Your task to perform on an android device: toggle notifications settings in the gmail app Image 0: 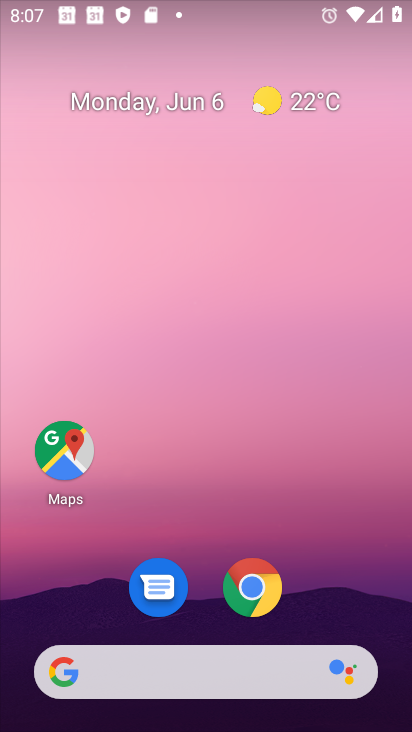
Step 0: drag from (242, 655) to (261, 250)
Your task to perform on an android device: toggle notifications settings in the gmail app Image 1: 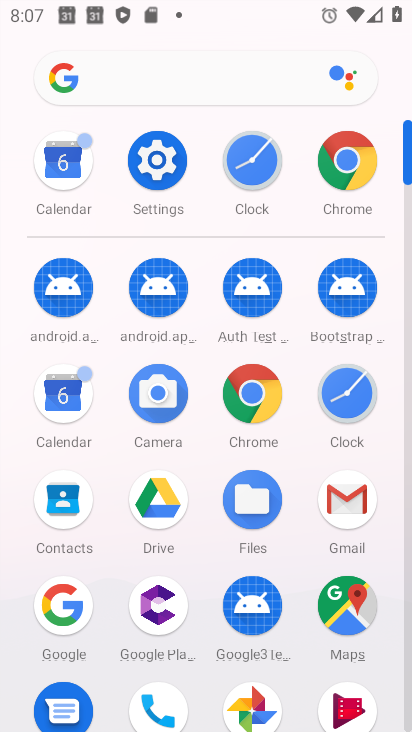
Step 1: click (328, 480)
Your task to perform on an android device: toggle notifications settings in the gmail app Image 2: 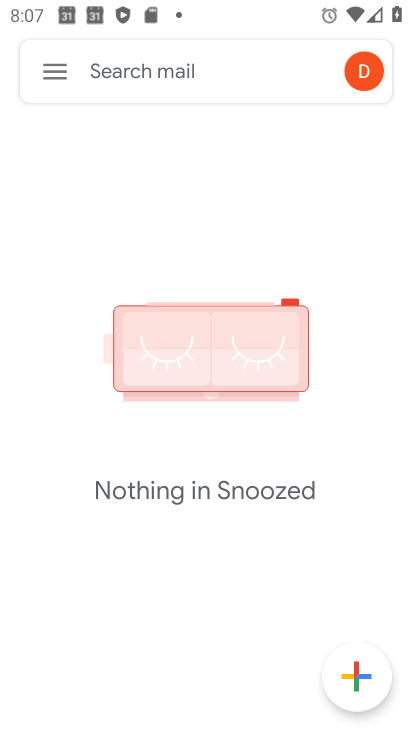
Step 2: click (58, 62)
Your task to perform on an android device: toggle notifications settings in the gmail app Image 3: 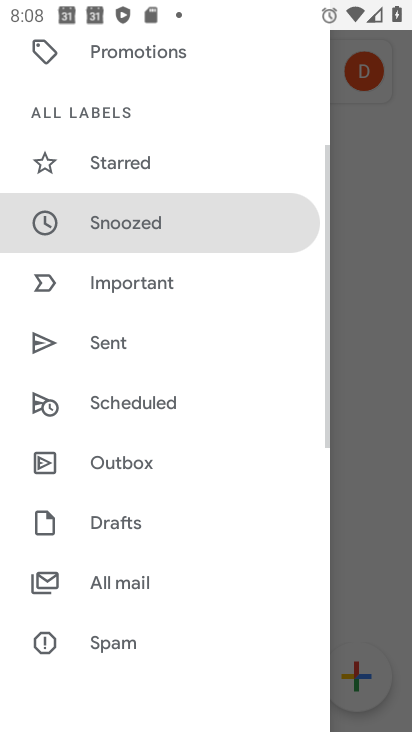
Step 3: drag from (166, 666) to (156, 295)
Your task to perform on an android device: toggle notifications settings in the gmail app Image 4: 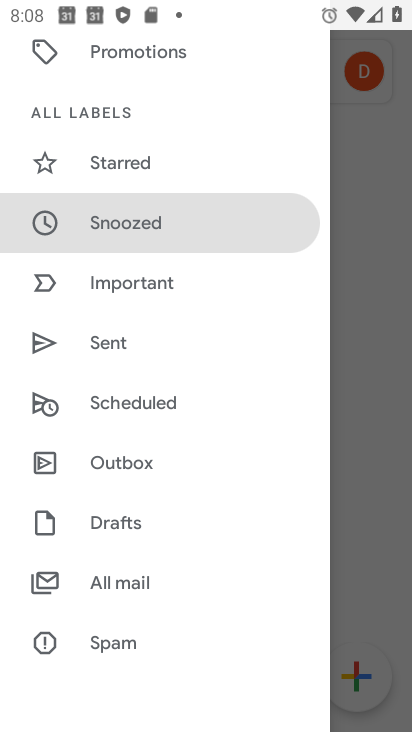
Step 4: drag from (137, 654) to (118, 496)
Your task to perform on an android device: toggle notifications settings in the gmail app Image 5: 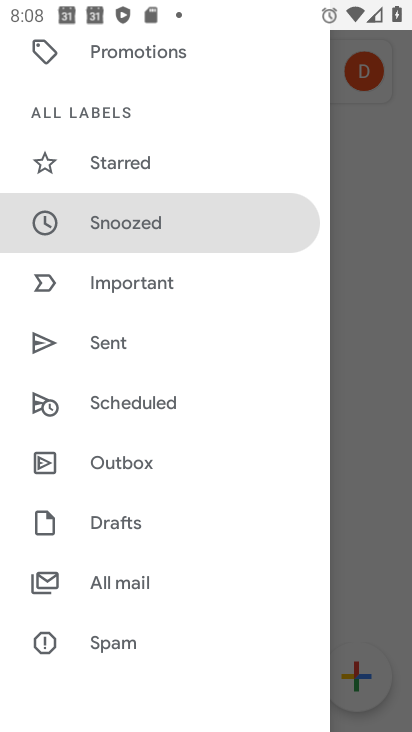
Step 5: drag from (88, 629) to (82, 202)
Your task to perform on an android device: toggle notifications settings in the gmail app Image 6: 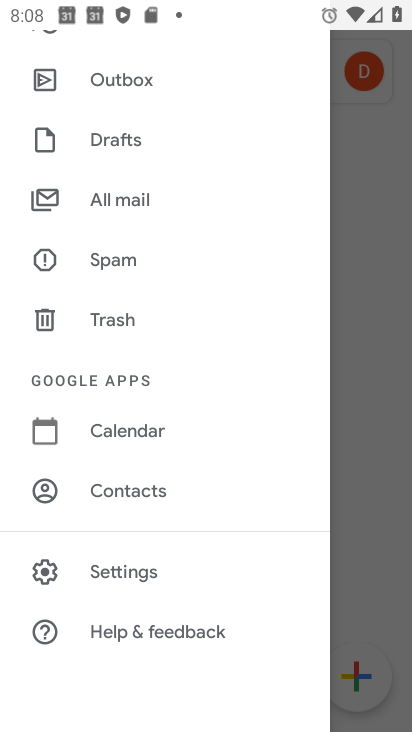
Step 6: click (118, 578)
Your task to perform on an android device: toggle notifications settings in the gmail app Image 7: 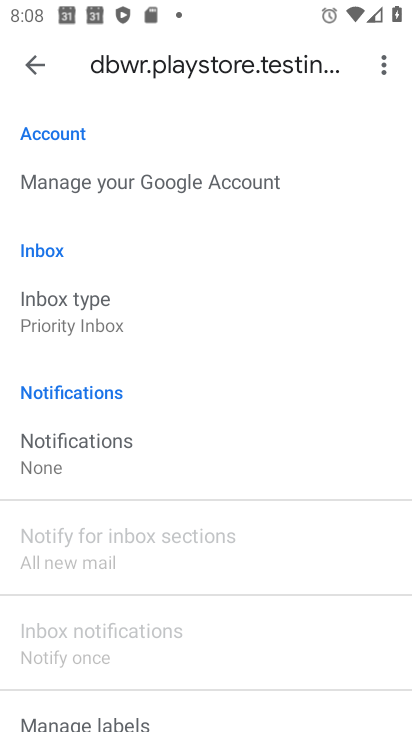
Step 7: click (35, 76)
Your task to perform on an android device: toggle notifications settings in the gmail app Image 8: 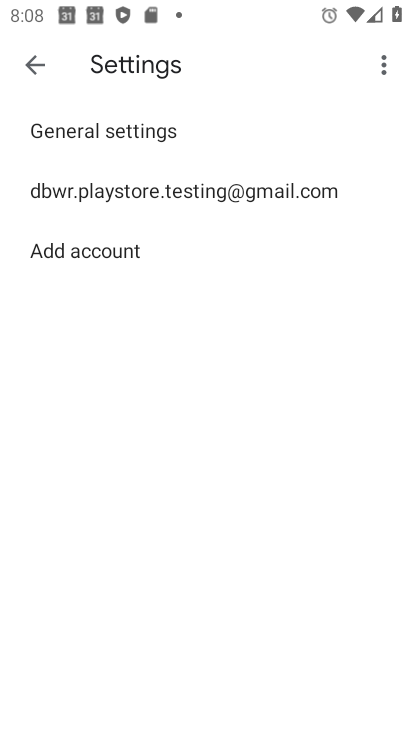
Step 8: click (68, 134)
Your task to perform on an android device: toggle notifications settings in the gmail app Image 9: 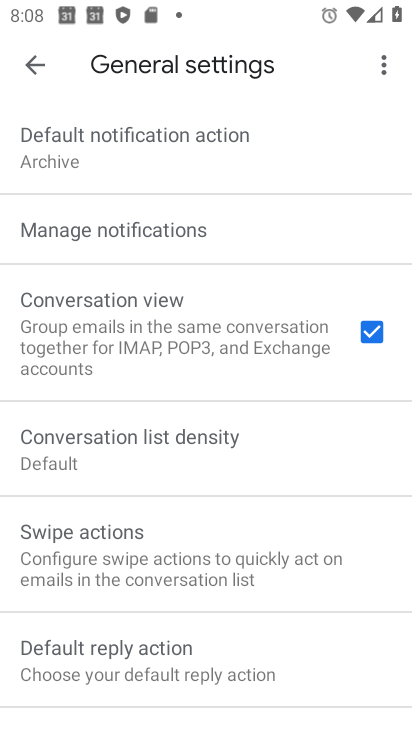
Step 9: click (144, 225)
Your task to perform on an android device: toggle notifications settings in the gmail app Image 10: 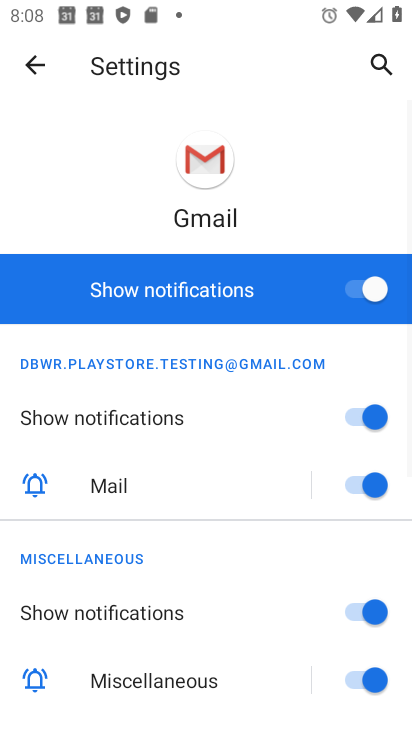
Step 10: click (358, 285)
Your task to perform on an android device: toggle notifications settings in the gmail app Image 11: 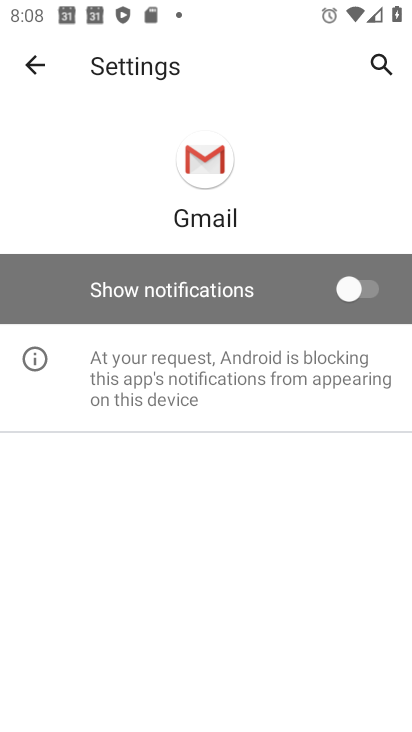
Step 11: task complete